Your task to perform on an android device: empty trash in google photos Image 0: 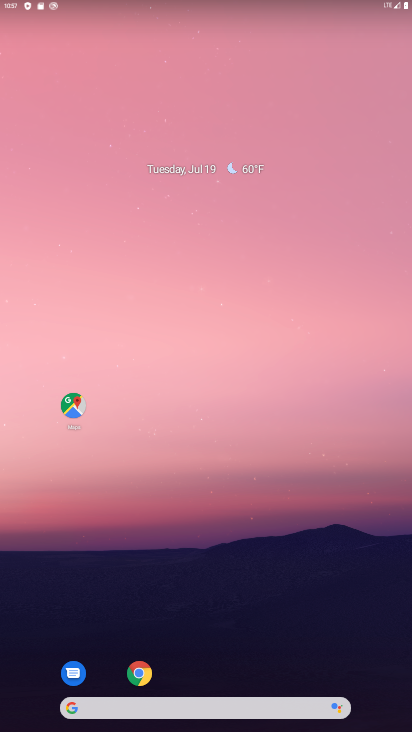
Step 0: drag from (205, 662) to (172, 117)
Your task to perform on an android device: empty trash in google photos Image 1: 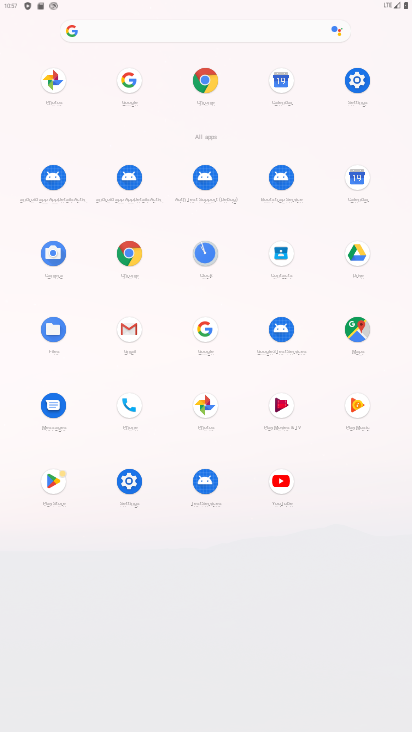
Step 1: click (203, 406)
Your task to perform on an android device: empty trash in google photos Image 2: 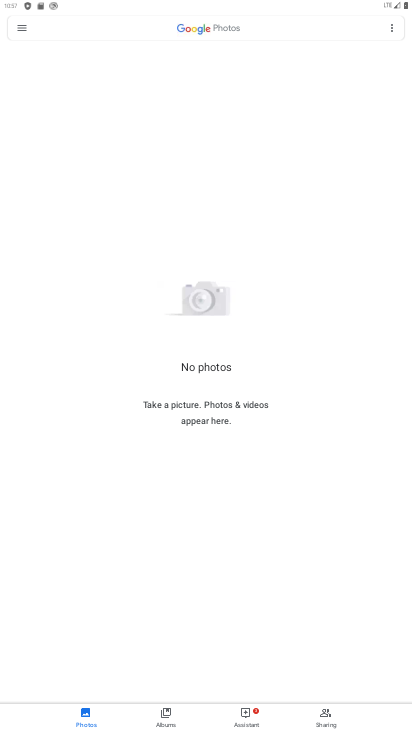
Step 2: click (23, 29)
Your task to perform on an android device: empty trash in google photos Image 3: 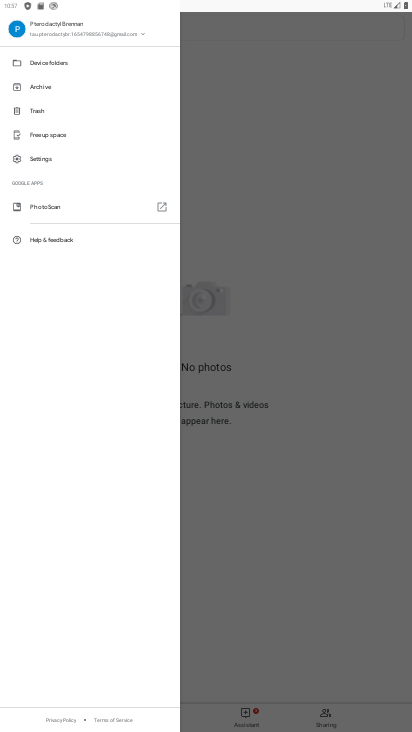
Step 3: click (42, 110)
Your task to perform on an android device: empty trash in google photos Image 4: 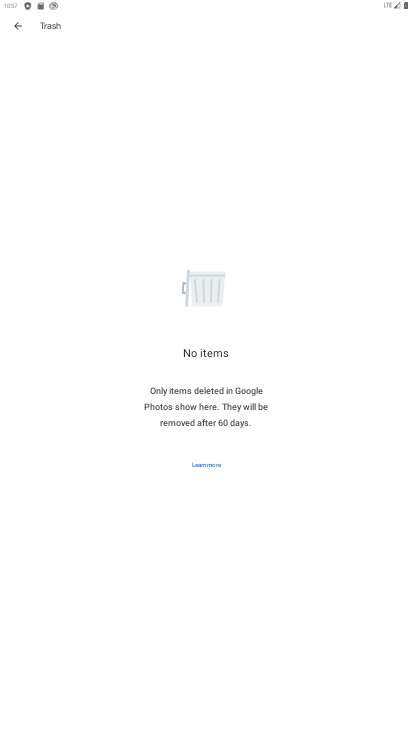
Step 4: task complete